Your task to perform on an android device: open chrome and create a bookmark for the current page Image 0: 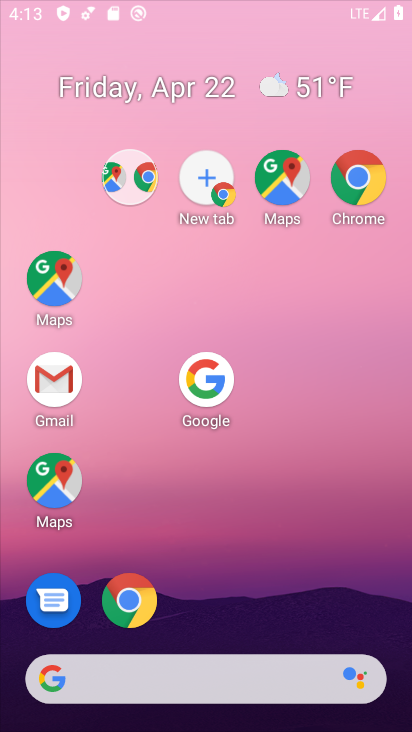
Step 0: drag from (206, 371) to (142, 227)
Your task to perform on an android device: open chrome and create a bookmark for the current page Image 1: 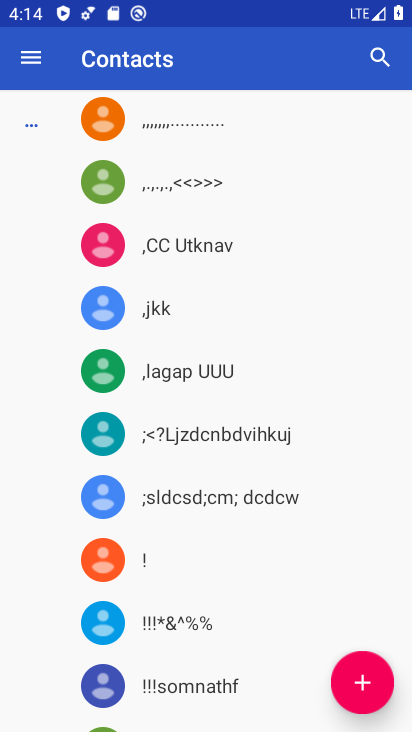
Step 1: press home button
Your task to perform on an android device: open chrome and create a bookmark for the current page Image 2: 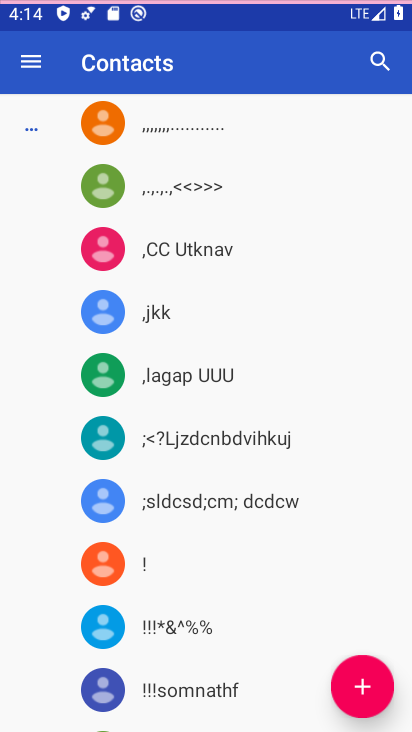
Step 2: press home button
Your task to perform on an android device: open chrome and create a bookmark for the current page Image 3: 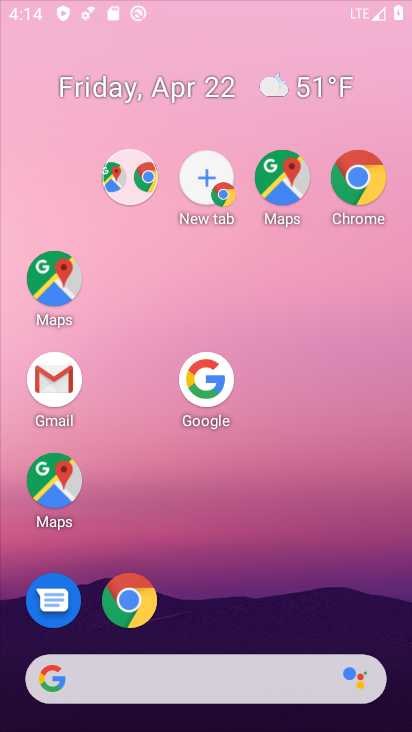
Step 3: press home button
Your task to perform on an android device: open chrome and create a bookmark for the current page Image 4: 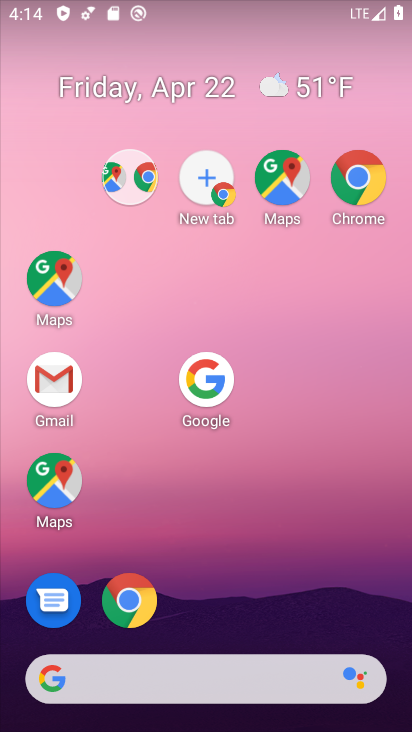
Step 4: drag from (231, 504) to (143, 185)
Your task to perform on an android device: open chrome and create a bookmark for the current page Image 5: 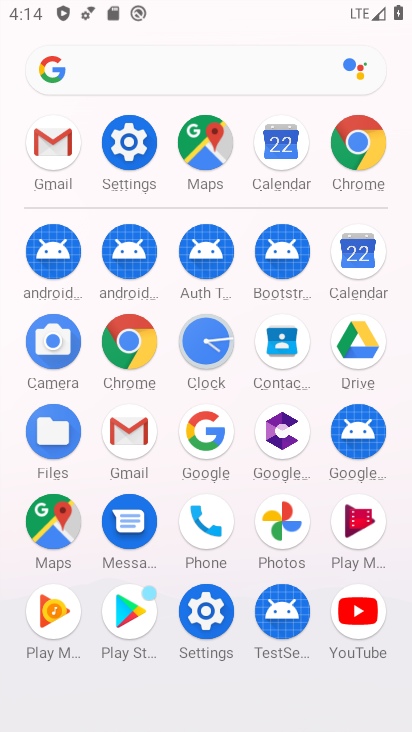
Step 5: drag from (226, 437) to (173, 24)
Your task to perform on an android device: open chrome and create a bookmark for the current page Image 6: 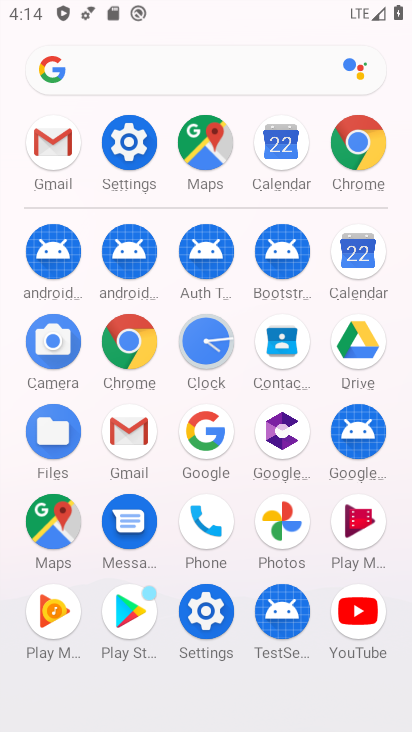
Step 6: click (357, 141)
Your task to perform on an android device: open chrome and create a bookmark for the current page Image 7: 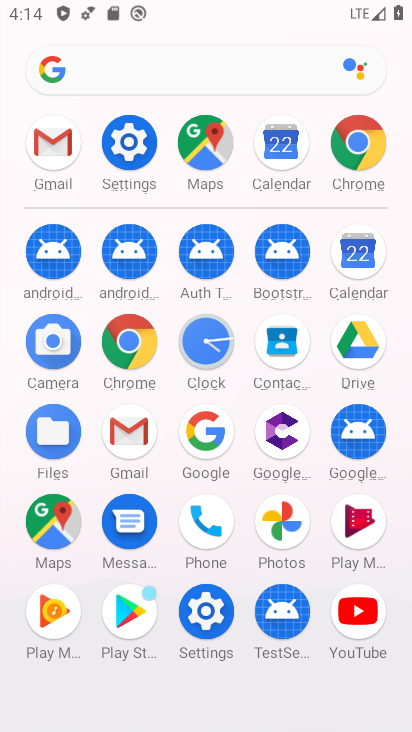
Step 7: drag from (357, 141) to (99, 504)
Your task to perform on an android device: open chrome and create a bookmark for the current page Image 8: 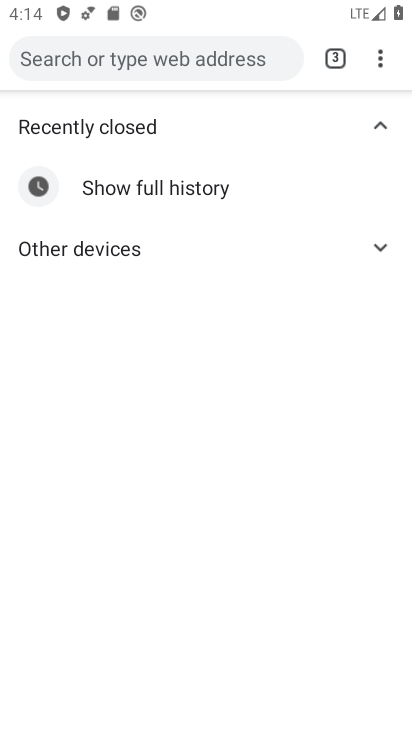
Step 8: drag from (380, 56) to (183, 222)
Your task to perform on an android device: open chrome and create a bookmark for the current page Image 9: 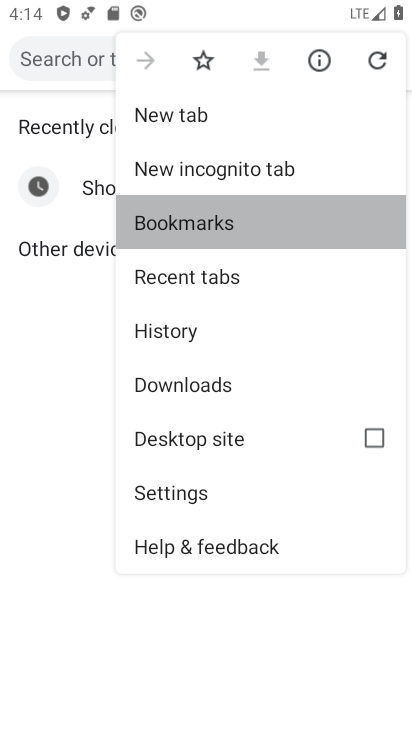
Step 9: click (184, 227)
Your task to perform on an android device: open chrome and create a bookmark for the current page Image 10: 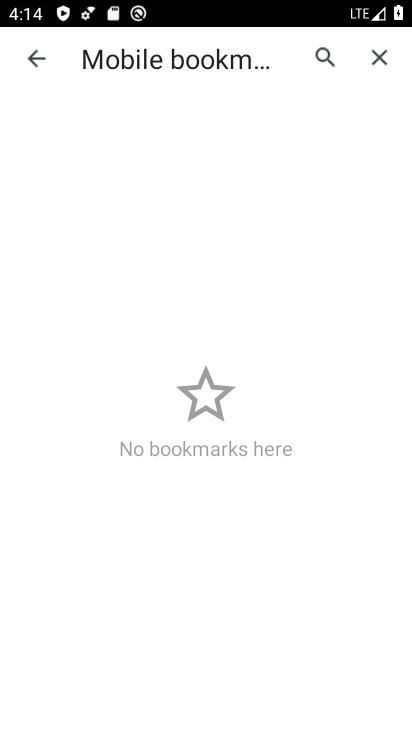
Step 10: click (186, 229)
Your task to perform on an android device: open chrome and create a bookmark for the current page Image 11: 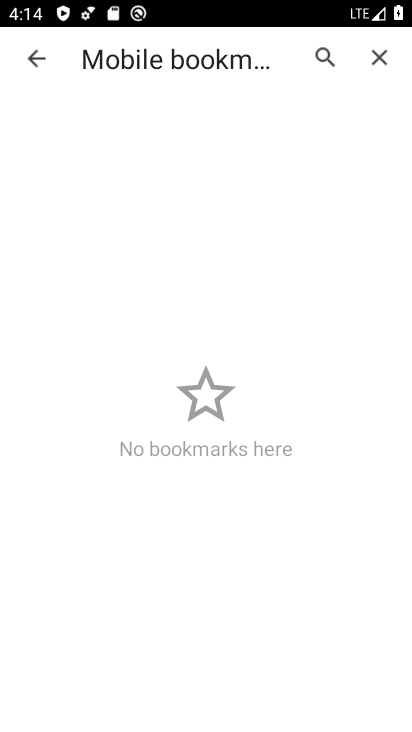
Step 11: click (36, 45)
Your task to perform on an android device: open chrome and create a bookmark for the current page Image 12: 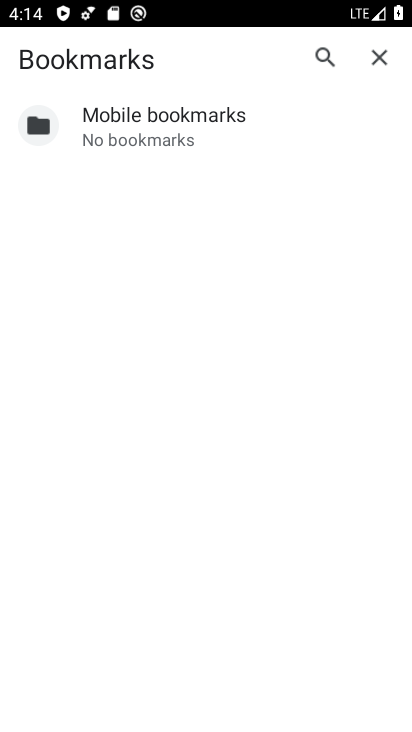
Step 12: click (377, 50)
Your task to perform on an android device: open chrome and create a bookmark for the current page Image 13: 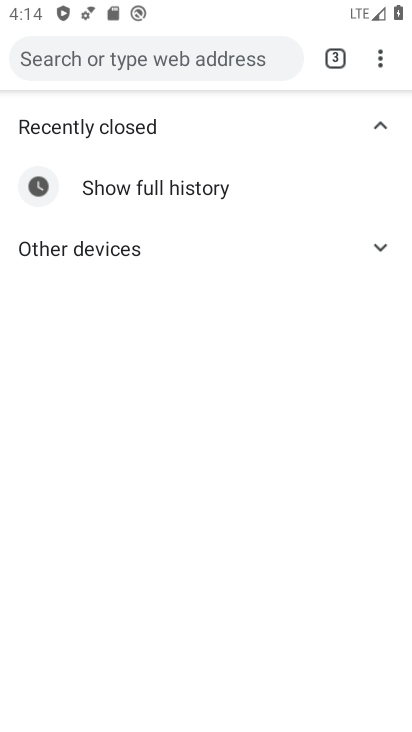
Step 13: click (75, 50)
Your task to perform on an android device: open chrome and create a bookmark for the current page Image 14: 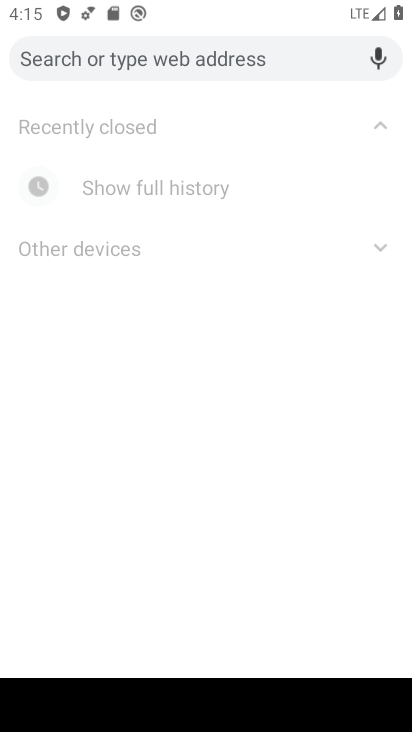
Step 14: type "www,snapdeal.com"
Your task to perform on an android device: open chrome and create a bookmark for the current page Image 15: 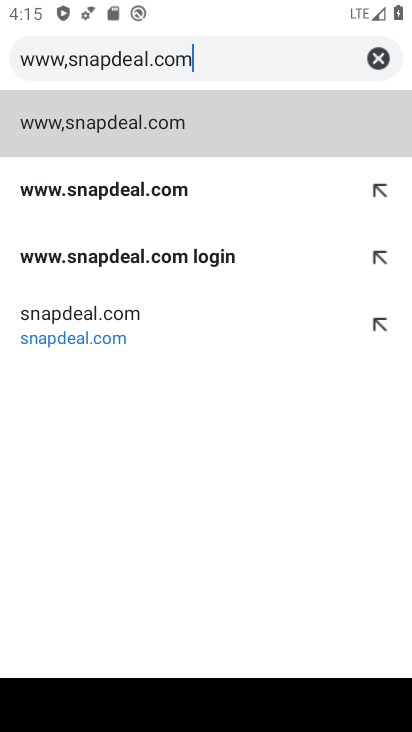
Step 15: click (148, 125)
Your task to perform on an android device: open chrome and create a bookmark for the current page Image 16: 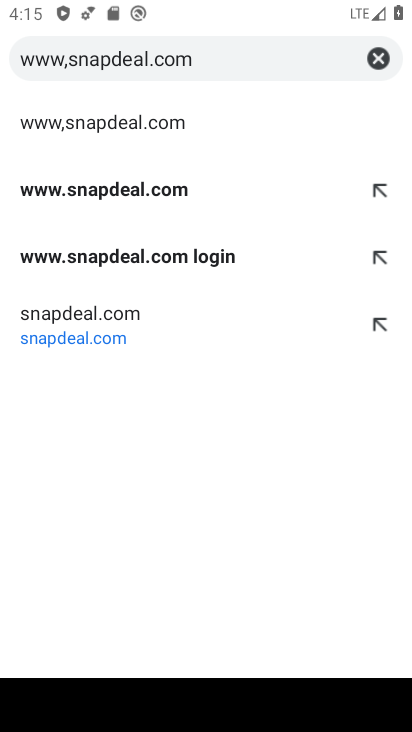
Step 16: click (140, 118)
Your task to perform on an android device: open chrome and create a bookmark for the current page Image 17: 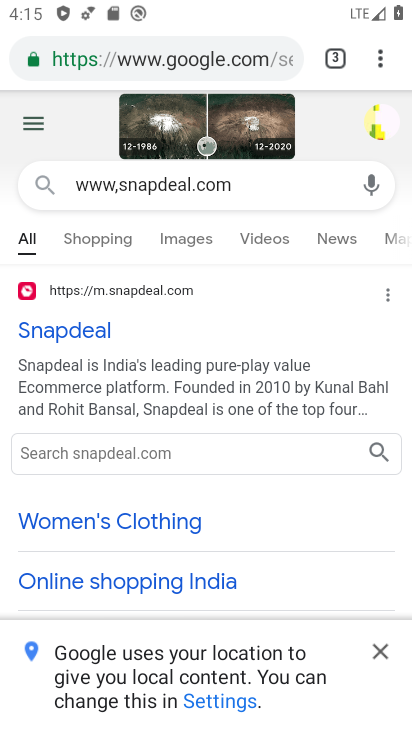
Step 17: task complete